Your task to perform on an android device: Go to Android settings Image 0: 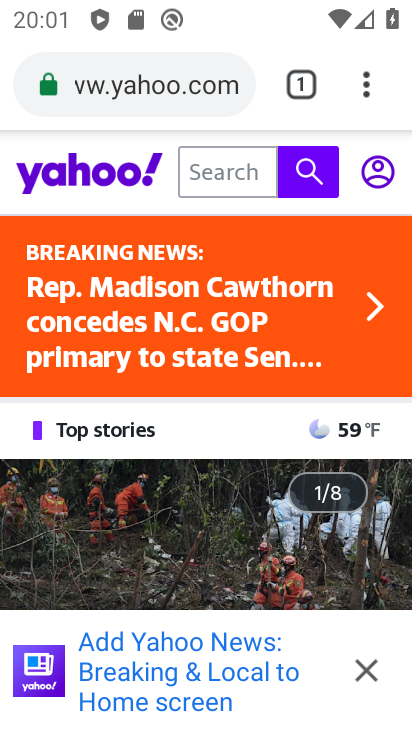
Step 0: press home button
Your task to perform on an android device: Go to Android settings Image 1: 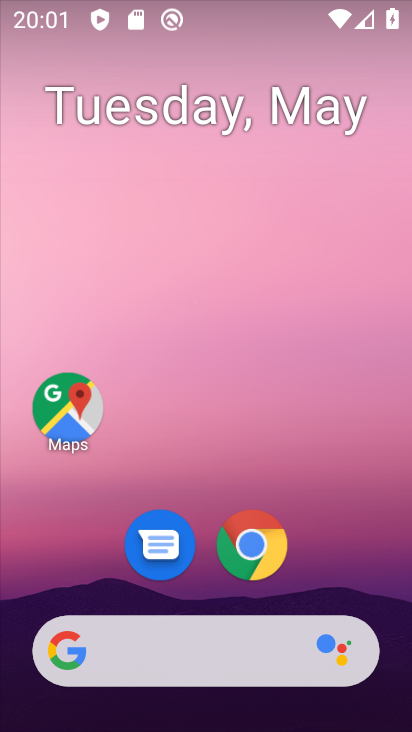
Step 1: drag from (355, 602) to (336, 117)
Your task to perform on an android device: Go to Android settings Image 2: 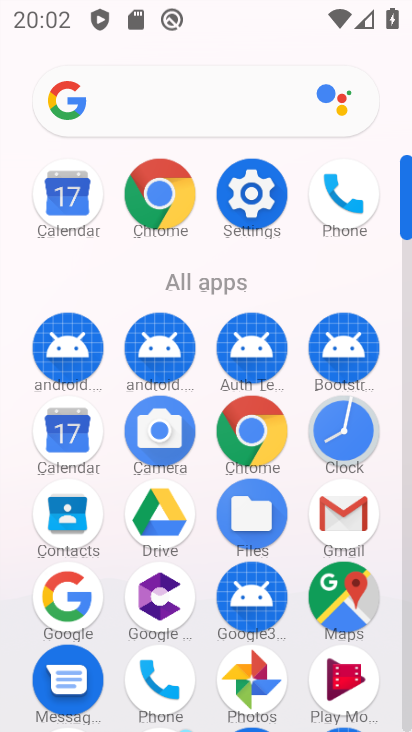
Step 2: click (246, 207)
Your task to perform on an android device: Go to Android settings Image 3: 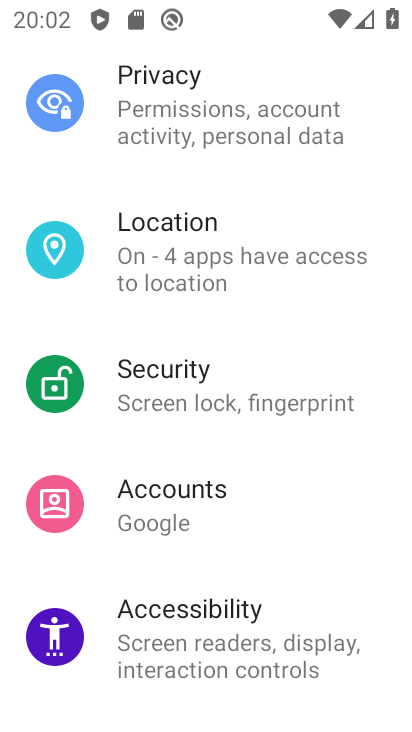
Step 3: task complete